Your task to perform on an android device: create a new album in the google photos Image 0: 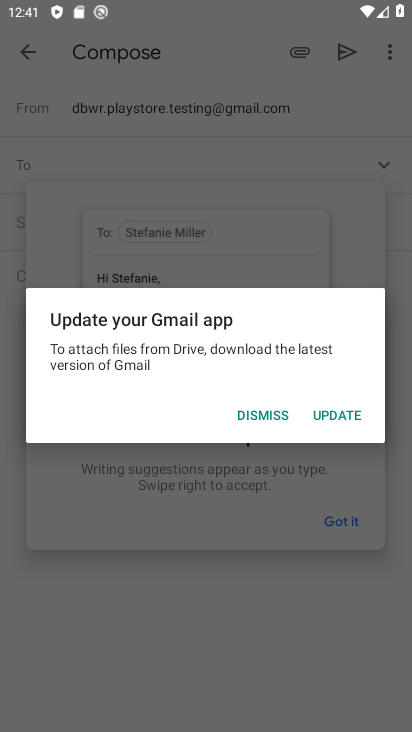
Step 0: press home button
Your task to perform on an android device: create a new album in the google photos Image 1: 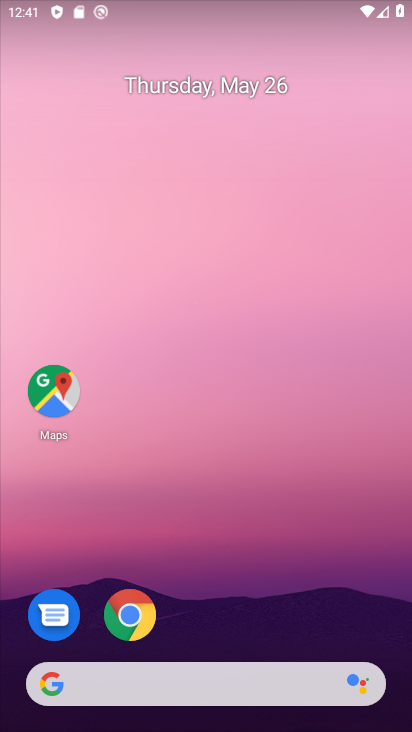
Step 1: drag from (253, 636) to (326, 115)
Your task to perform on an android device: create a new album in the google photos Image 2: 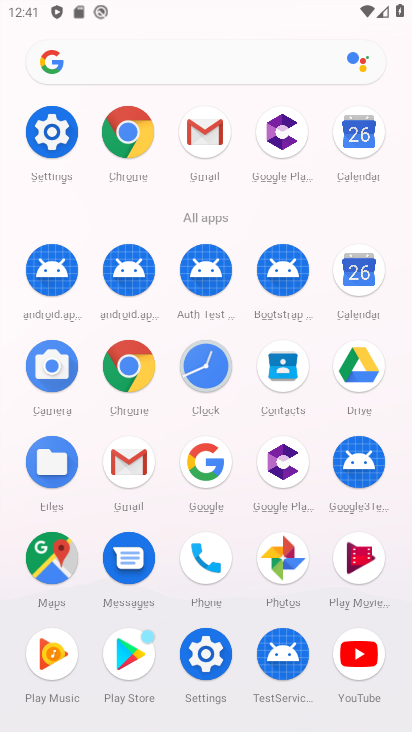
Step 2: click (271, 560)
Your task to perform on an android device: create a new album in the google photos Image 3: 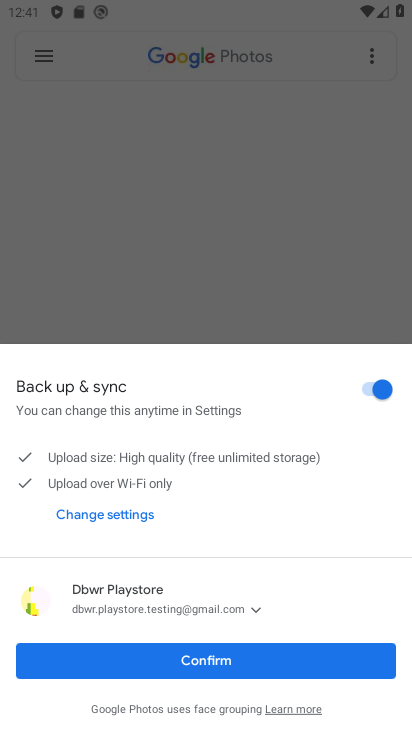
Step 3: click (205, 658)
Your task to perform on an android device: create a new album in the google photos Image 4: 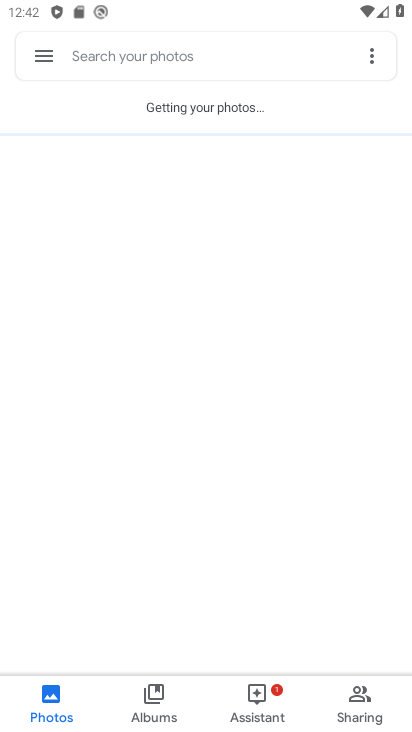
Step 4: click (371, 49)
Your task to perform on an android device: create a new album in the google photos Image 5: 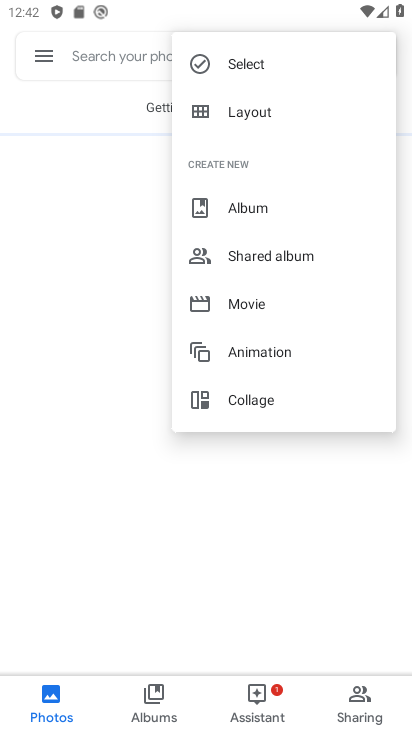
Step 5: click (243, 206)
Your task to perform on an android device: create a new album in the google photos Image 6: 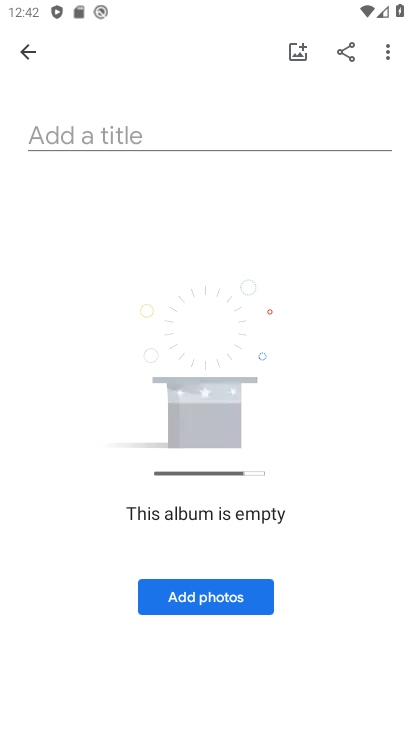
Step 6: click (104, 130)
Your task to perform on an android device: create a new album in the google photos Image 7: 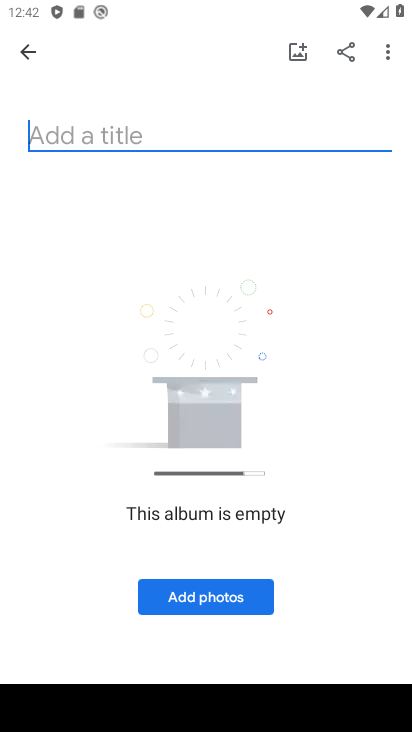
Step 7: type "hvh"
Your task to perform on an android device: create a new album in the google photos Image 8: 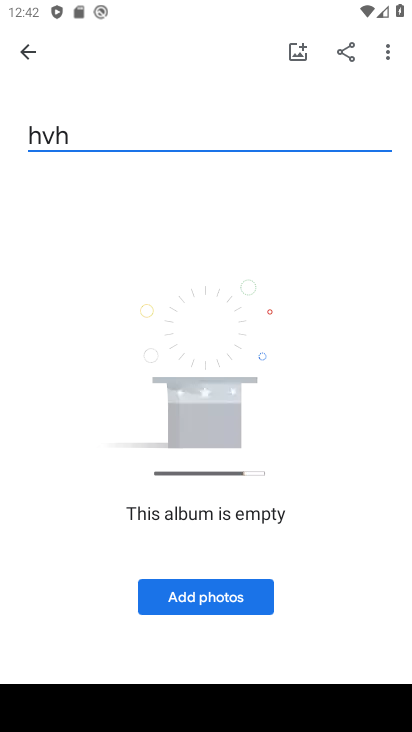
Step 8: click (222, 598)
Your task to perform on an android device: create a new album in the google photos Image 9: 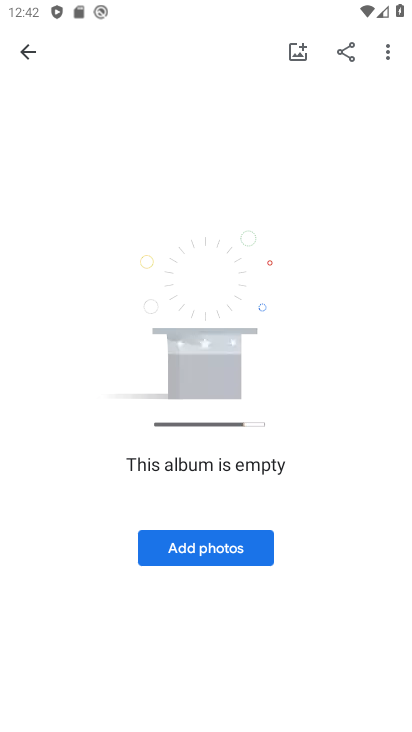
Step 9: click (205, 546)
Your task to perform on an android device: create a new album in the google photos Image 10: 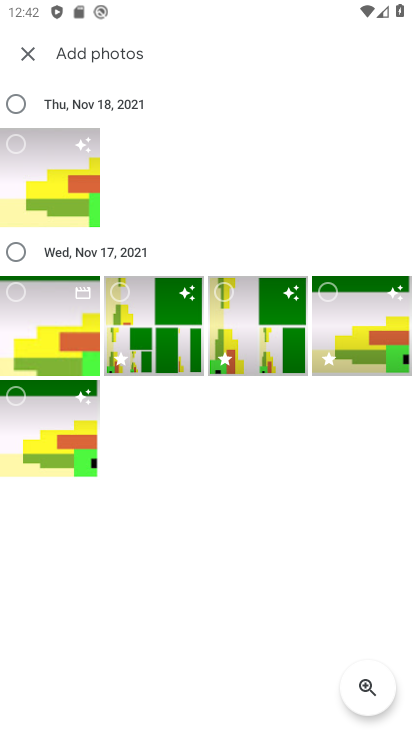
Step 10: click (23, 97)
Your task to perform on an android device: create a new album in the google photos Image 11: 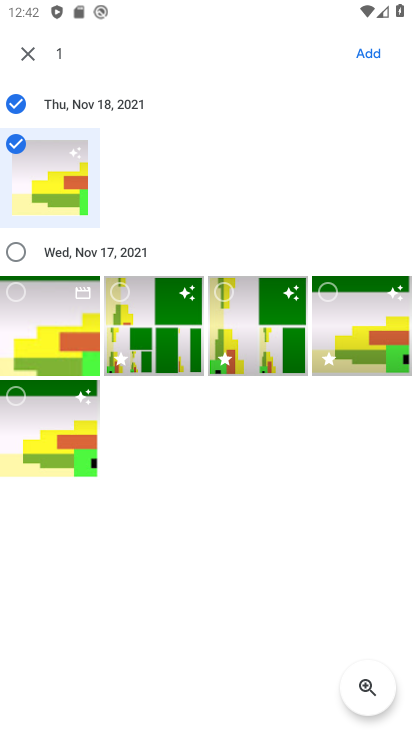
Step 11: click (17, 239)
Your task to perform on an android device: create a new album in the google photos Image 12: 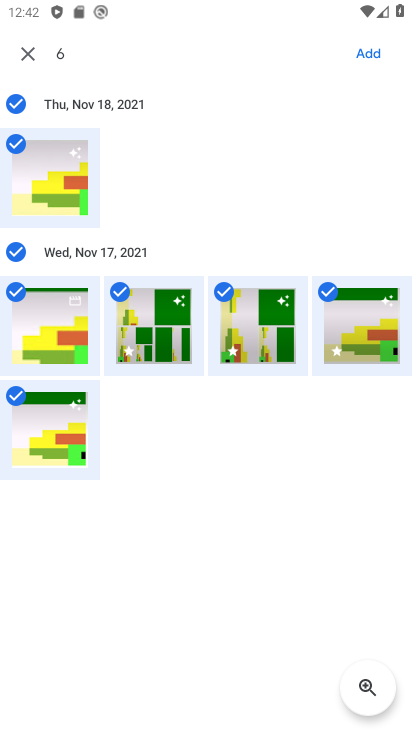
Step 12: click (376, 42)
Your task to perform on an android device: create a new album in the google photos Image 13: 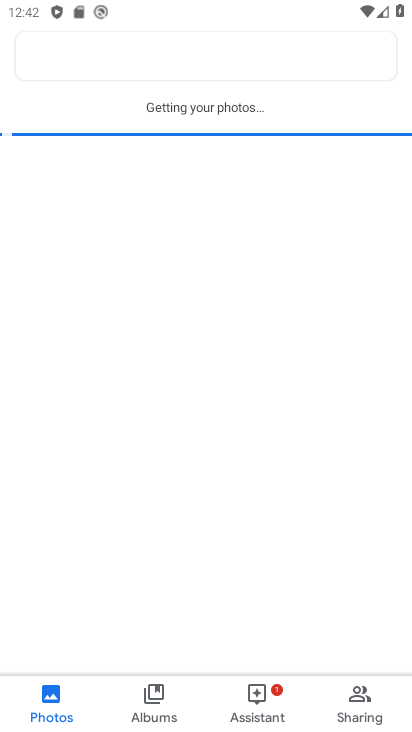
Step 13: task complete